Your task to perform on an android device: manage bookmarks in the chrome app Image 0: 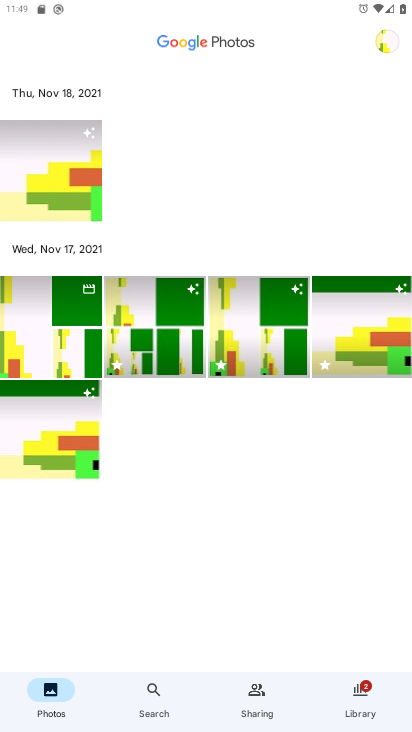
Step 0: press home button
Your task to perform on an android device: manage bookmarks in the chrome app Image 1: 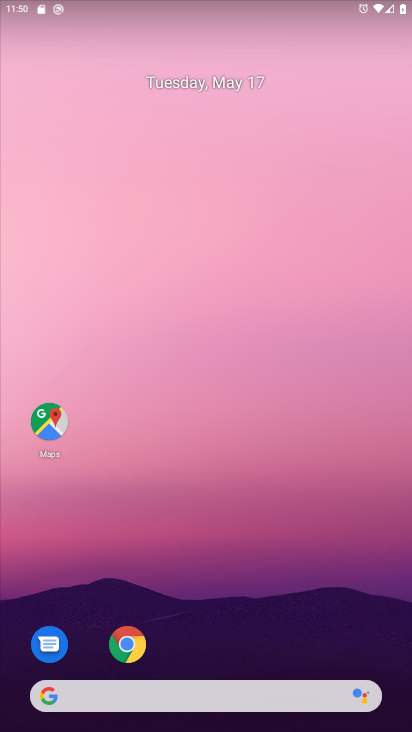
Step 1: click (122, 638)
Your task to perform on an android device: manage bookmarks in the chrome app Image 2: 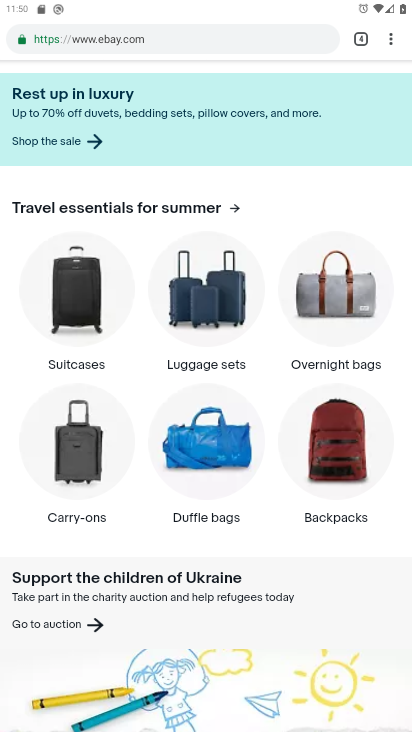
Step 2: click (393, 34)
Your task to perform on an android device: manage bookmarks in the chrome app Image 3: 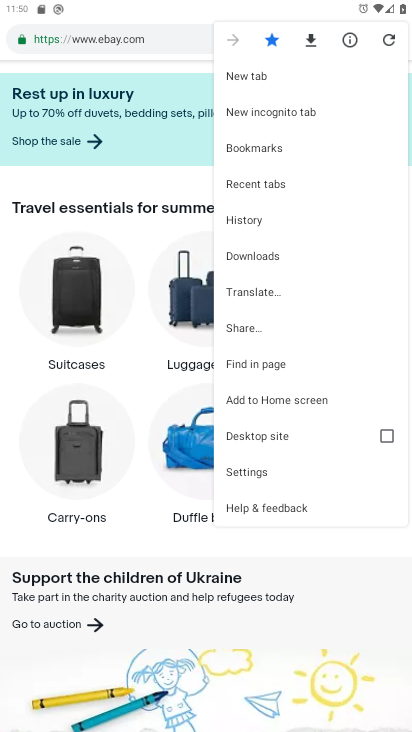
Step 3: click (291, 146)
Your task to perform on an android device: manage bookmarks in the chrome app Image 4: 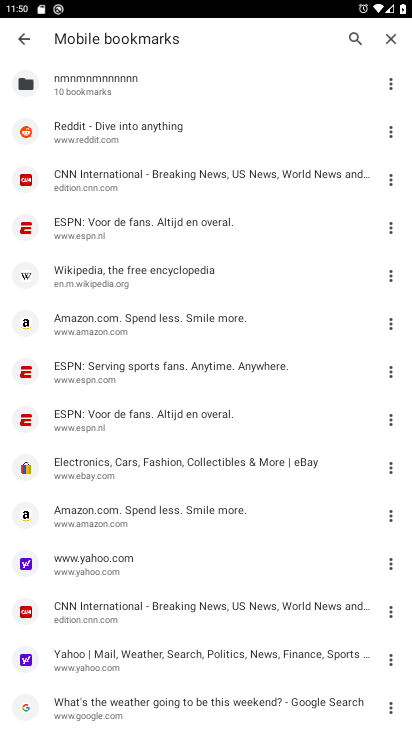
Step 4: drag from (190, 544) to (215, 237)
Your task to perform on an android device: manage bookmarks in the chrome app Image 5: 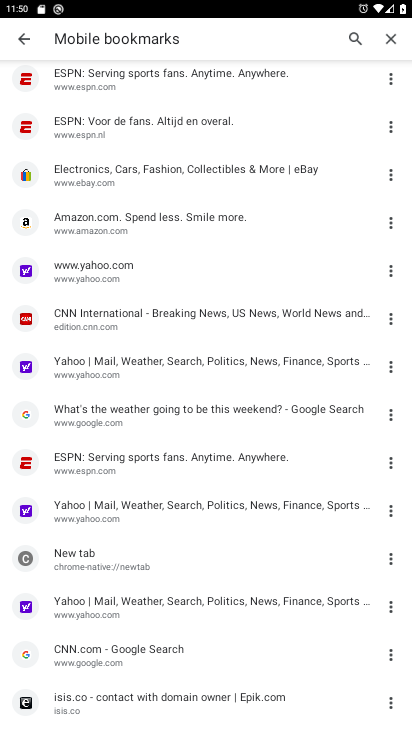
Step 5: click (394, 598)
Your task to perform on an android device: manage bookmarks in the chrome app Image 6: 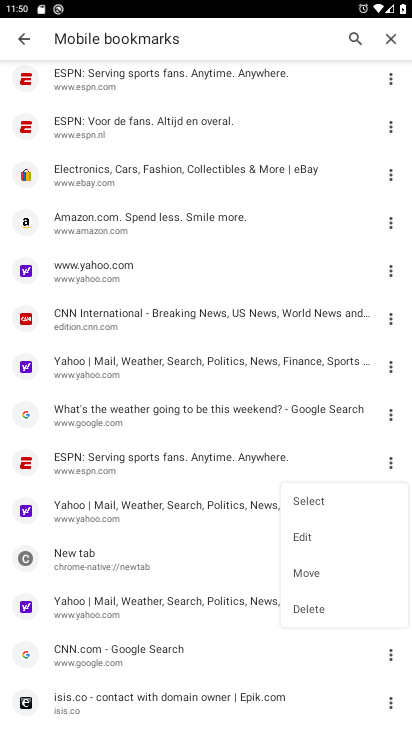
Step 6: click (318, 604)
Your task to perform on an android device: manage bookmarks in the chrome app Image 7: 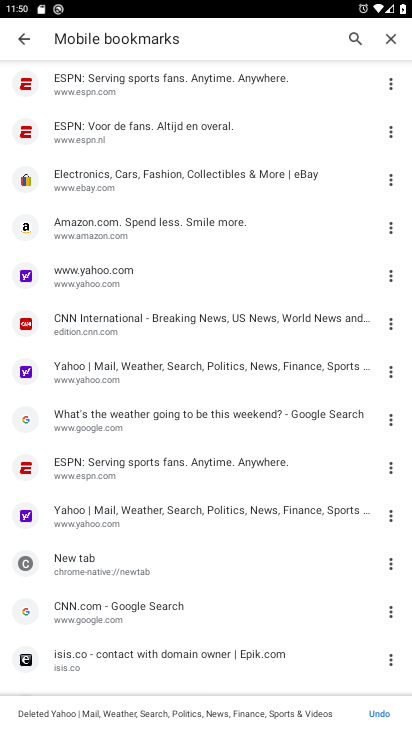
Step 7: task complete